Your task to perform on an android device: turn on showing notifications on the lock screen Image 0: 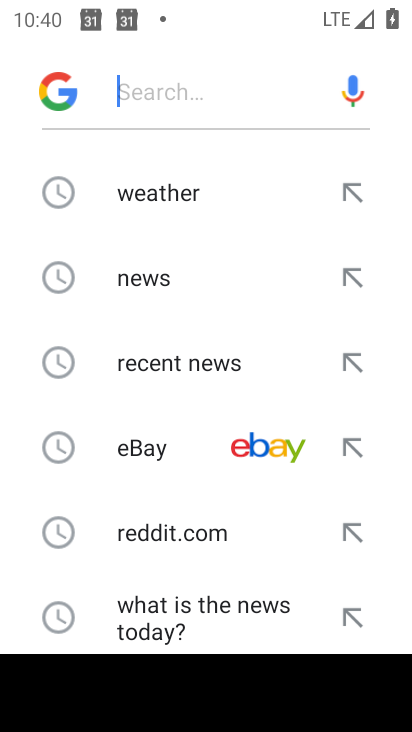
Step 0: press home button
Your task to perform on an android device: turn on showing notifications on the lock screen Image 1: 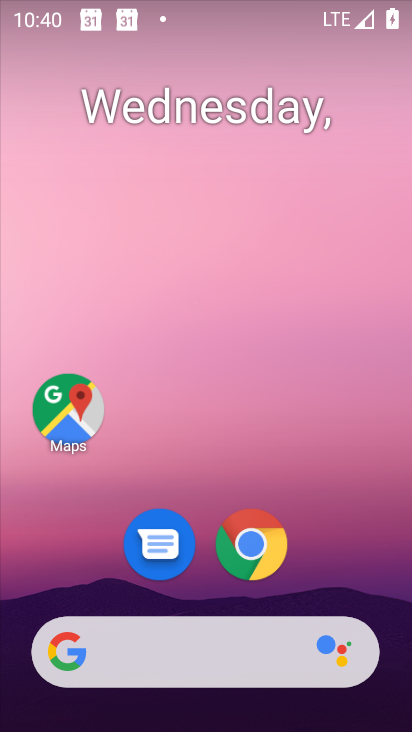
Step 1: drag from (319, 584) to (248, 40)
Your task to perform on an android device: turn on showing notifications on the lock screen Image 2: 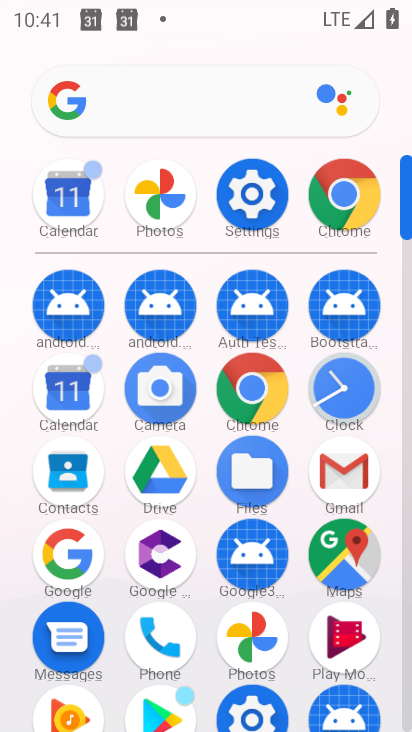
Step 2: click (242, 188)
Your task to perform on an android device: turn on showing notifications on the lock screen Image 3: 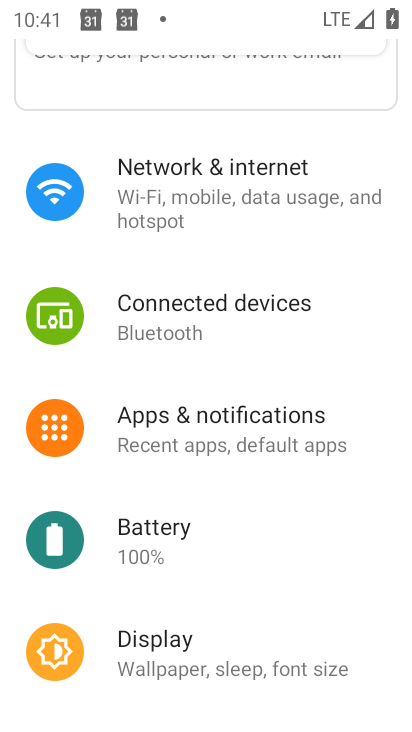
Step 3: click (199, 443)
Your task to perform on an android device: turn on showing notifications on the lock screen Image 4: 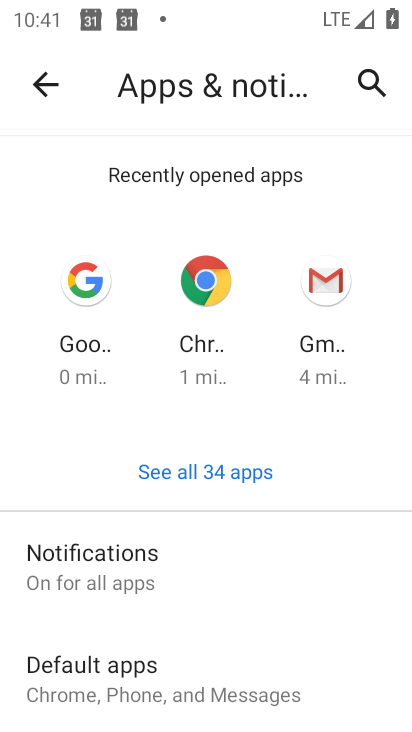
Step 4: click (148, 588)
Your task to perform on an android device: turn on showing notifications on the lock screen Image 5: 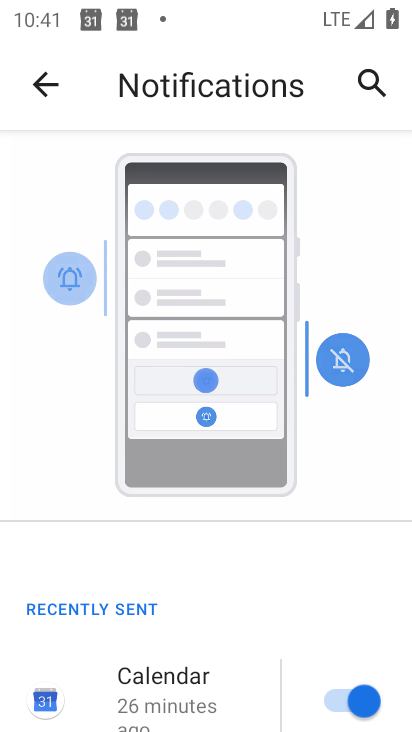
Step 5: drag from (144, 616) to (207, 204)
Your task to perform on an android device: turn on showing notifications on the lock screen Image 6: 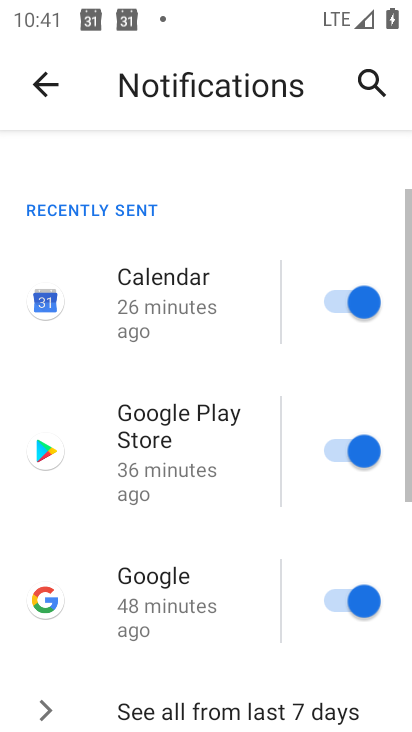
Step 6: drag from (177, 611) to (248, 259)
Your task to perform on an android device: turn on showing notifications on the lock screen Image 7: 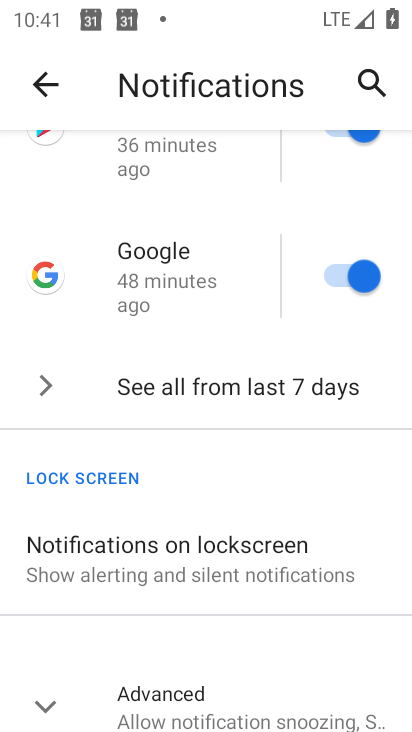
Step 7: click (256, 543)
Your task to perform on an android device: turn on showing notifications on the lock screen Image 8: 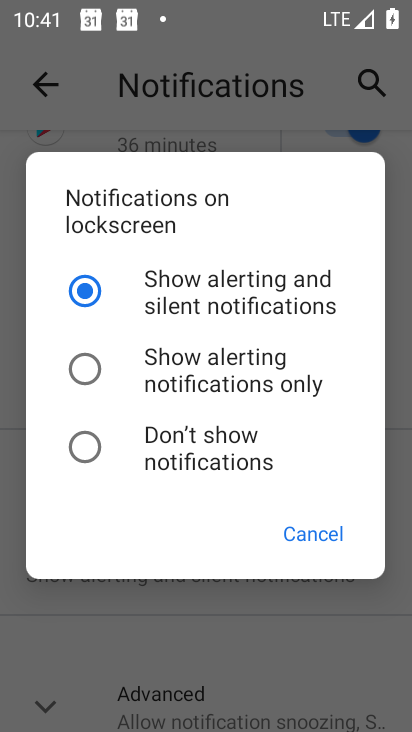
Step 8: click (201, 379)
Your task to perform on an android device: turn on showing notifications on the lock screen Image 9: 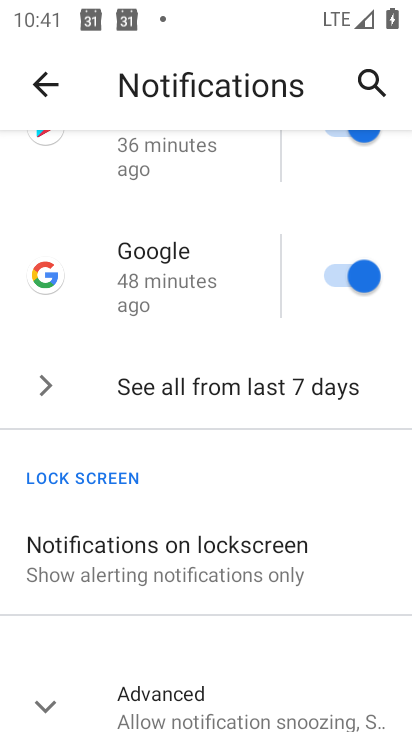
Step 9: task complete